Your task to perform on an android device: Search for Italian restaurants on Maps Image 0: 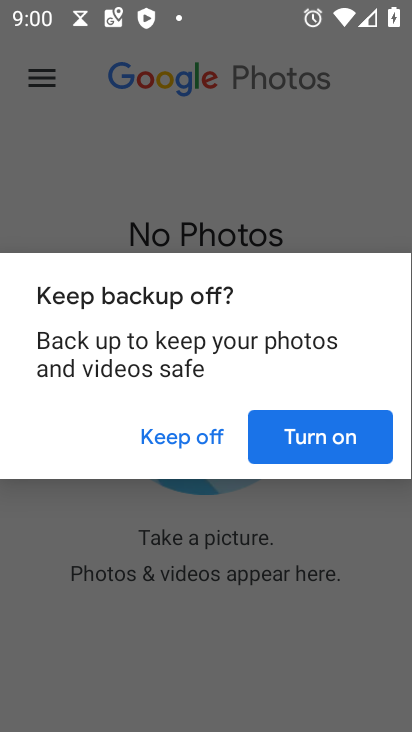
Step 0: click (180, 429)
Your task to perform on an android device: Search for Italian restaurants on Maps Image 1: 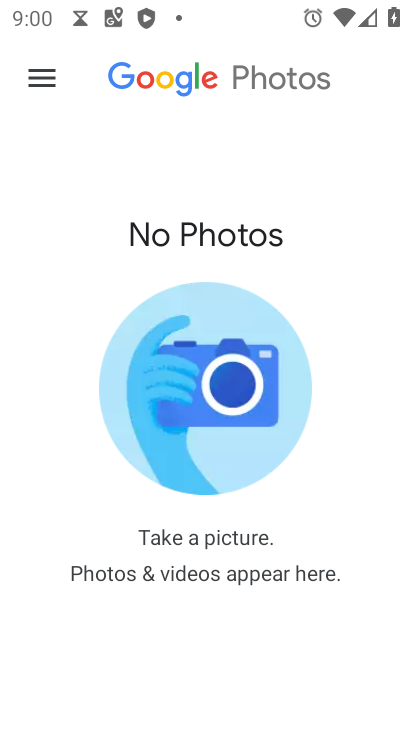
Step 1: press home button
Your task to perform on an android device: Search for Italian restaurants on Maps Image 2: 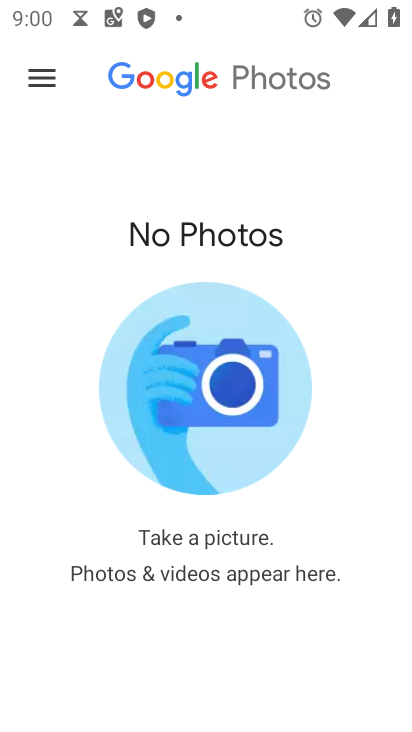
Step 2: press home button
Your task to perform on an android device: Search for Italian restaurants on Maps Image 3: 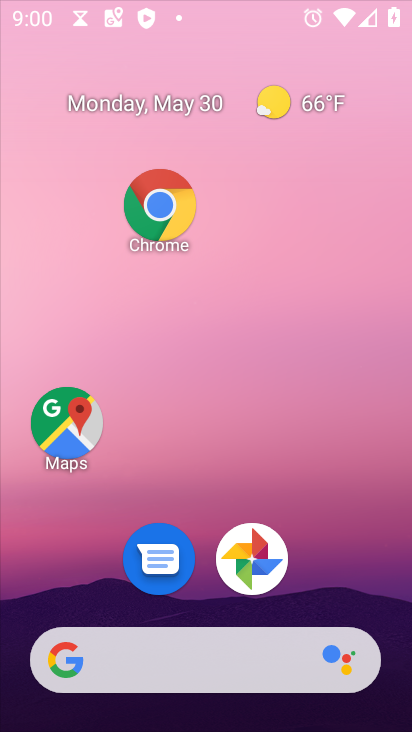
Step 3: press home button
Your task to perform on an android device: Search for Italian restaurants on Maps Image 4: 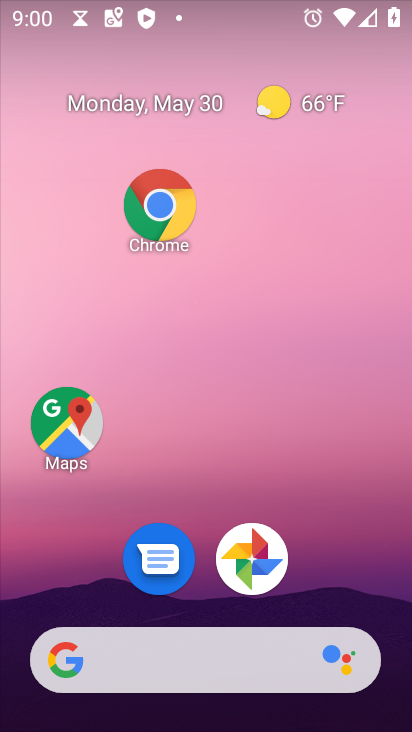
Step 4: drag from (288, 714) to (135, 10)
Your task to perform on an android device: Search for Italian restaurants on Maps Image 5: 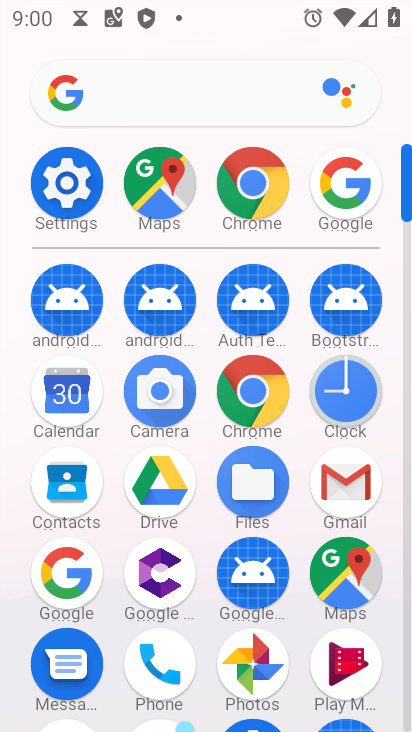
Step 5: click (330, 571)
Your task to perform on an android device: Search for Italian restaurants on Maps Image 6: 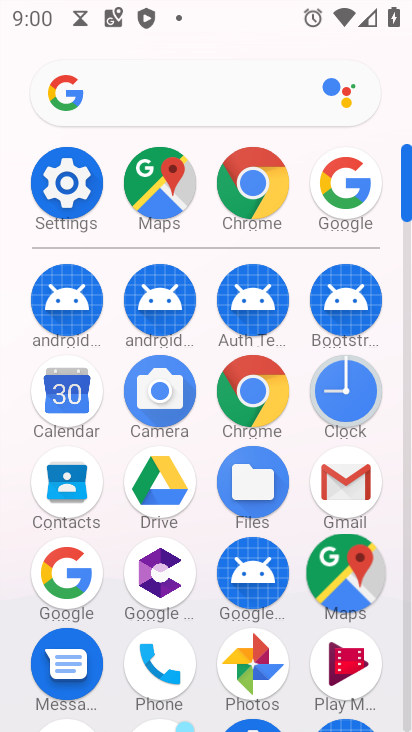
Step 6: click (337, 574)
Your task to perform on an android device: Search for Italian restaurants on Maps Image 7: 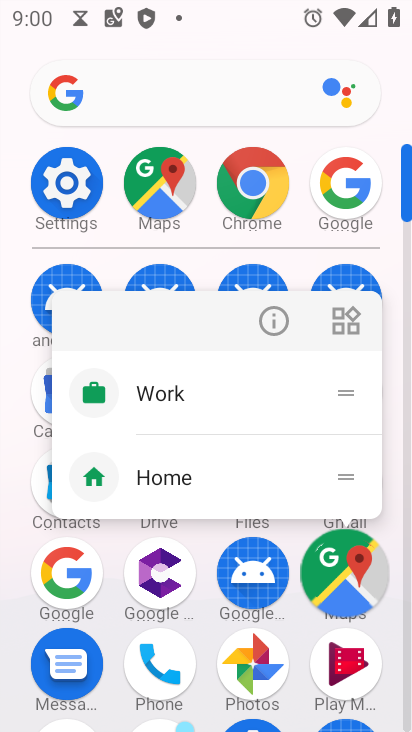
Step 7: click (338, 573)
Your task to perform on an android device: Search for Italian restaurants on Maps Image 8: 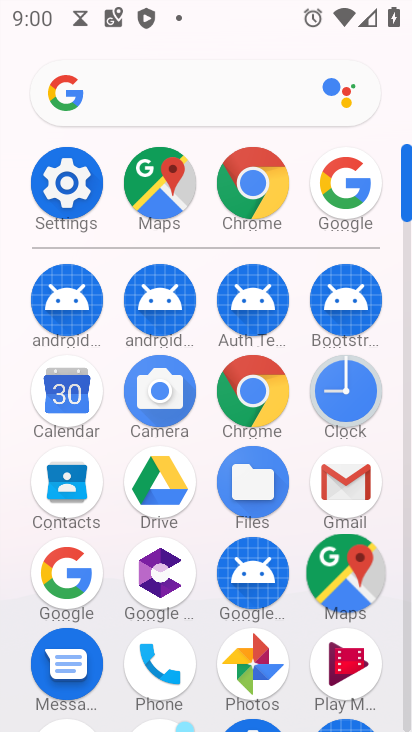
Step 8: click (338, 571)
Your task to perform on an android device: Search for Italian restaurants on Maps Image 9: 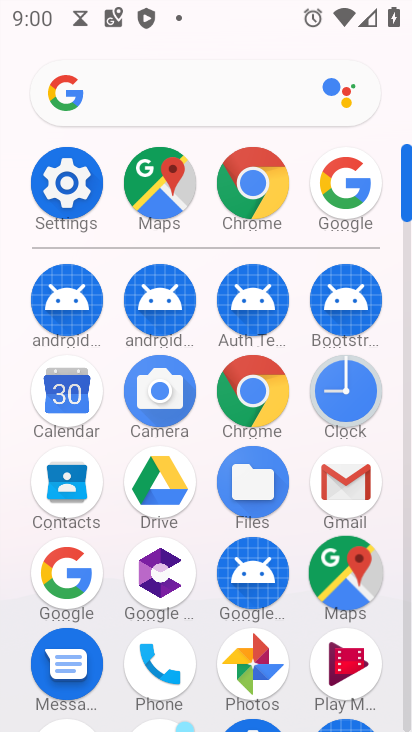
Step 9: click (336, 565)
Your task to perform on an android device: Search for Italian restaurants on Maps Image 10: 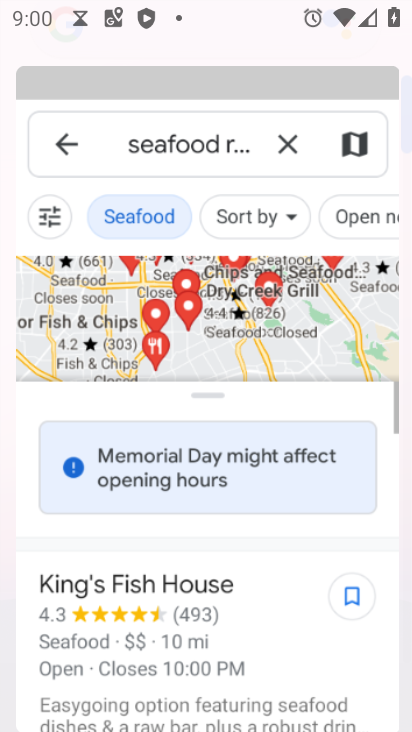
Step 10: click (335, 563)
Your task to perform on an android device: Search for Italian restaurants on Maps Image 11: 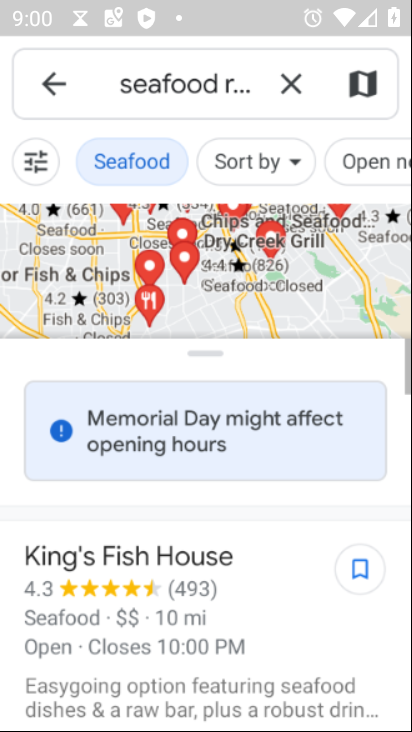
Step 11: click (335, 563)
Your task to perform on an android device: Search for Italian restaurants on Maps Image 12: 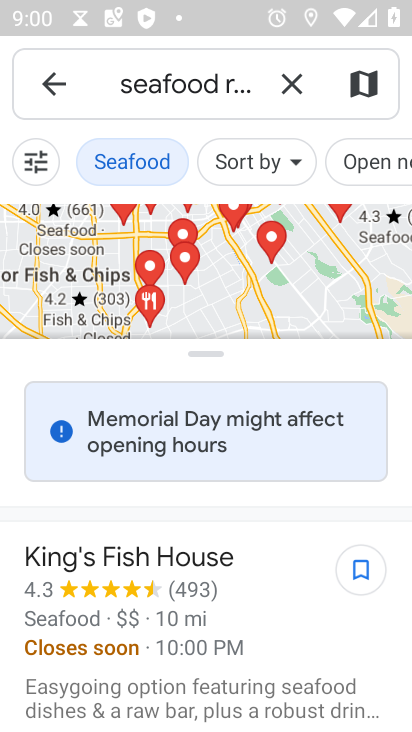
Step 12: click (289, 76)
Your task to perform on an android device: Search for Italian restaurants on Maps Image 13: 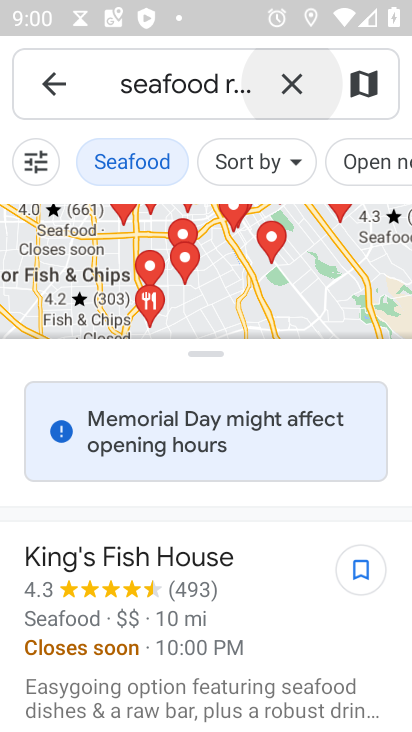
Step 13: click (289, 76)
Your task to perform on an android device: Search for Italian restaurants on Maps Image 14: 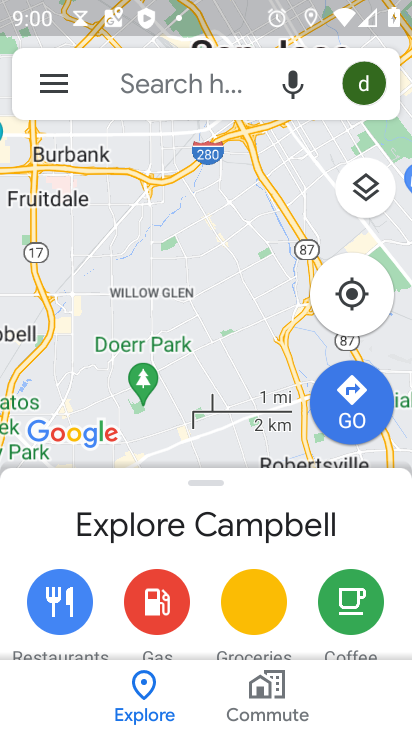
Step 14: click (134, 78)
Your task to perform on an android device: Search for Italian restaurants on Maps Image 15: 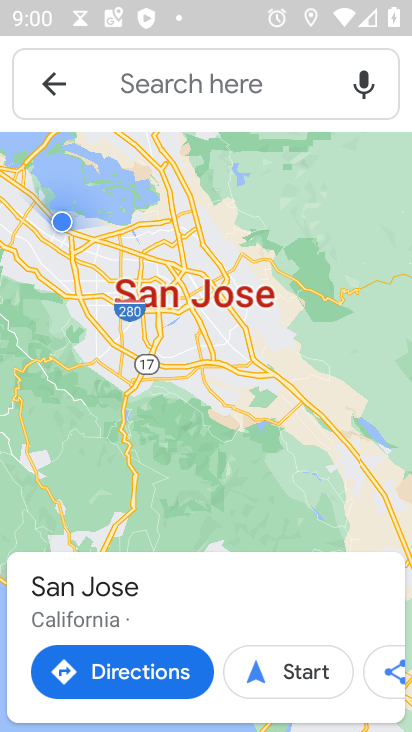
Step 15: click (114, 91)
Your task to perform on an android device: Search for Italian restaurants on Maps Image 16: 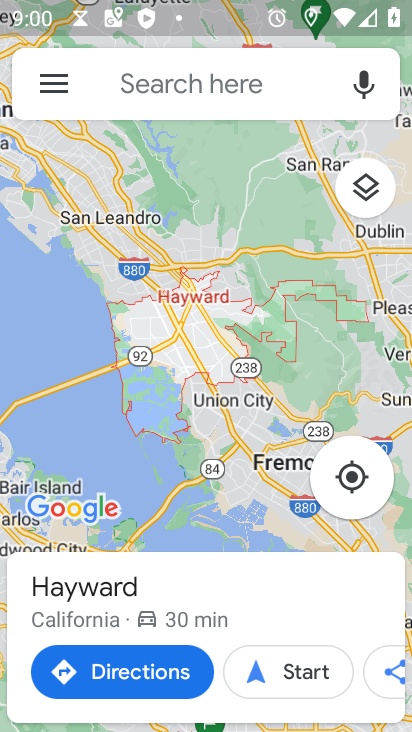
Step 16: click (113, 84)
Your task to perform on an android device: Search for Italian restaurants on Maps Image 17: 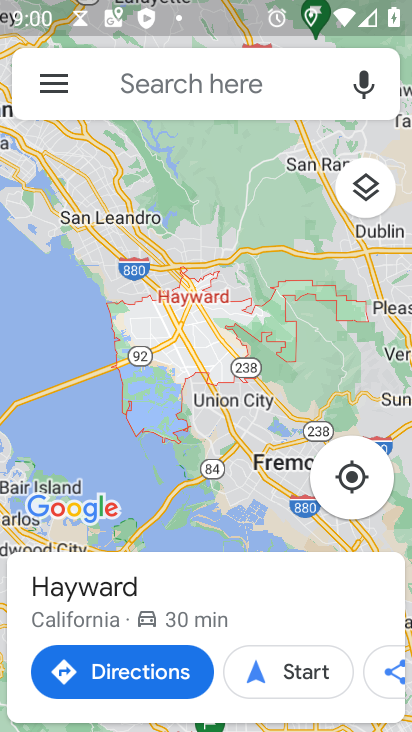
Step 17: click (116, 84)
Your task to perform on an android device: Search for Italian restaurants on Maps Image 18: 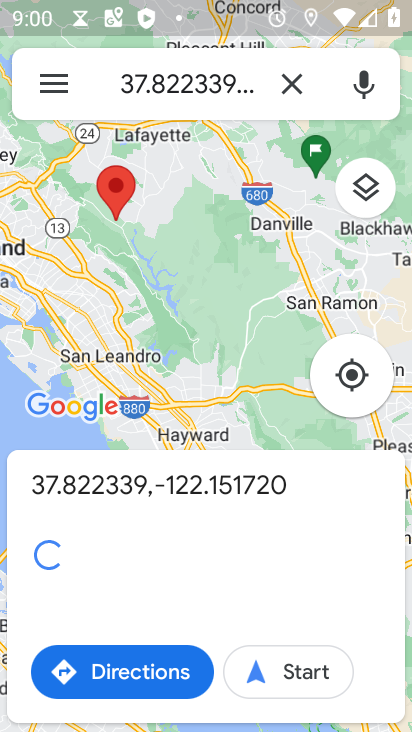
Step 18: click (103, 77)
Your task to perform on an android device: Search for Italian restaurants on Maps Image 19: 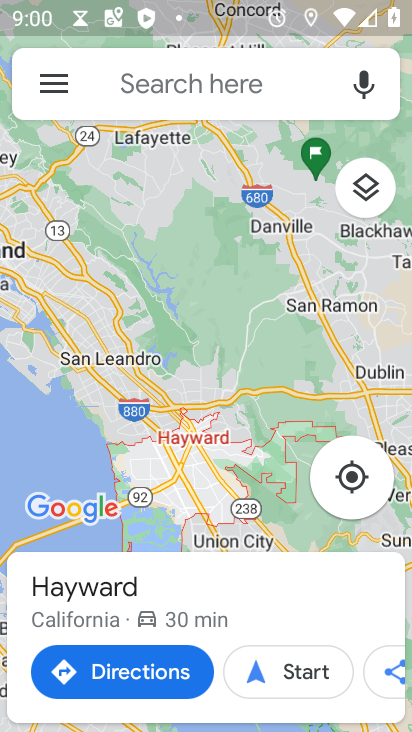
Step 19: click (284, 89)
Your task to perform on an android device: Search for Italian restaurants on Maps Image 20: 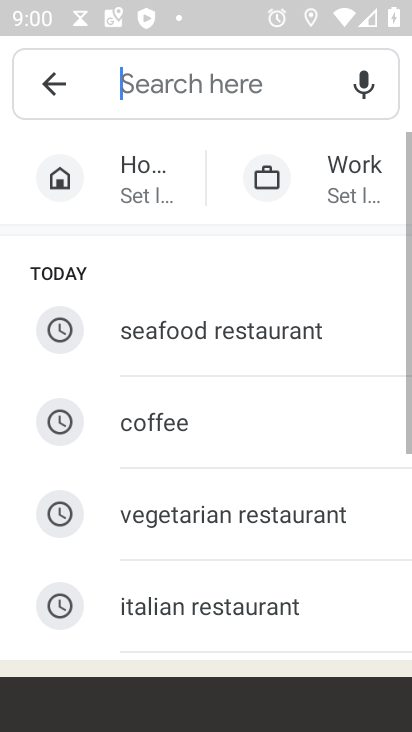
Step 20: click (132, 72)
Your task to perform on an android device: Search for Italian restaurants on Maps Image 21: 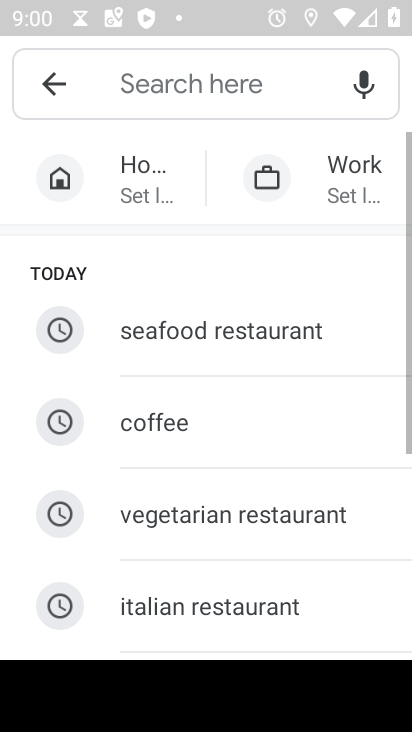
Step 21: click (108, 87)
Your task to perform on an android device: Search for Italian restaurants on Maps Image 22: 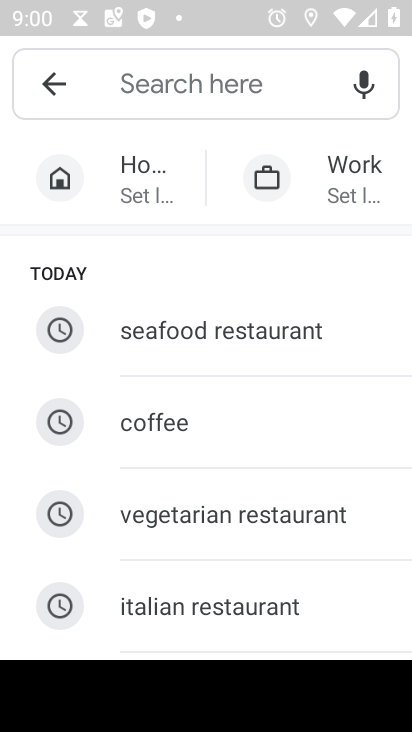
Step 22: click (164, 611)
Your task to perform on an android device: Search for Italian restaurants on Maps Image 23: 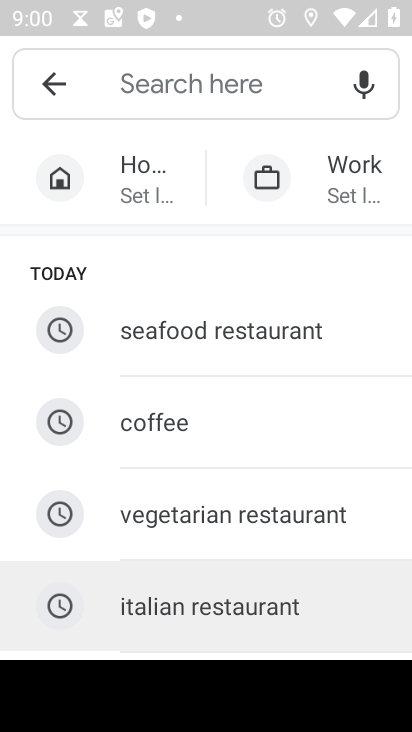
Step 23: click (164, 611)
Your task to perform on an android device: Search for Italian restaurants on Maps Image 24: 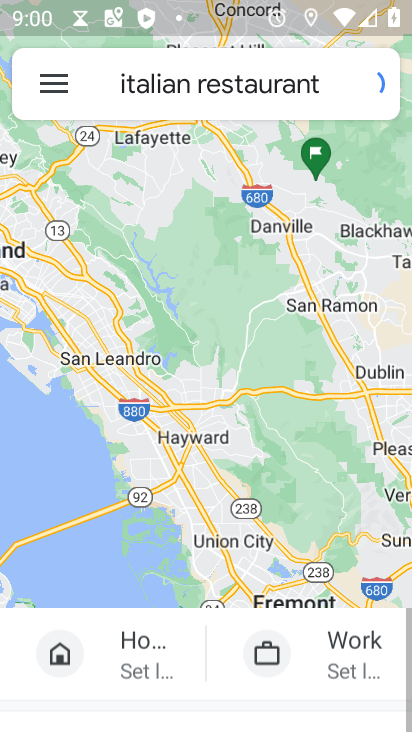
Step 24: click (164, 611)
Your task to perform on an android device: Search for Italian restaurants on Maps Image 25: 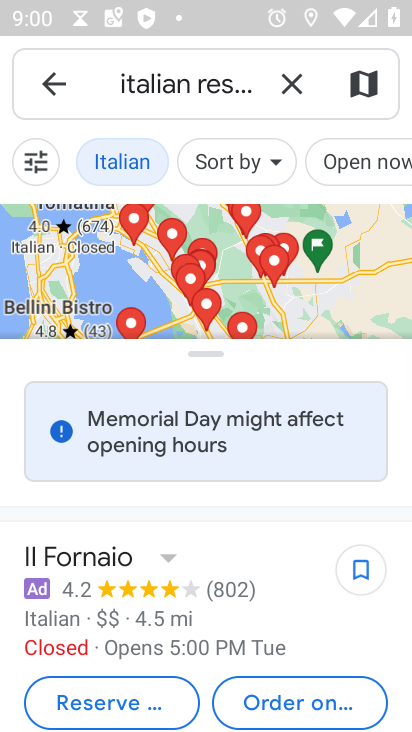
Step 25: task complete